Your task to perform on an android device: Open Google Image 0: 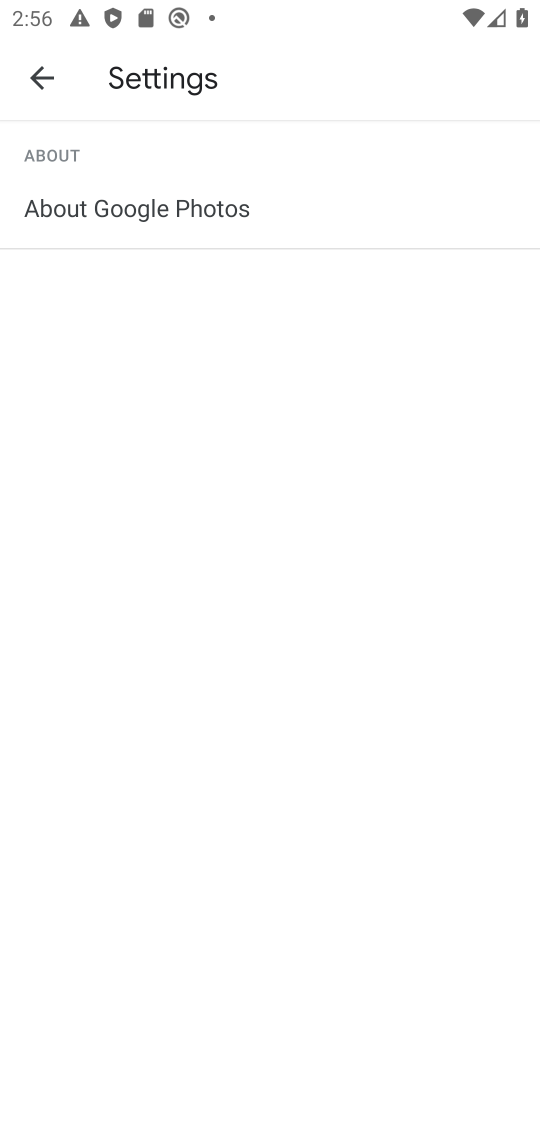
Step 0: press home button
Your task to perform on an android device: Open Google Image 1: 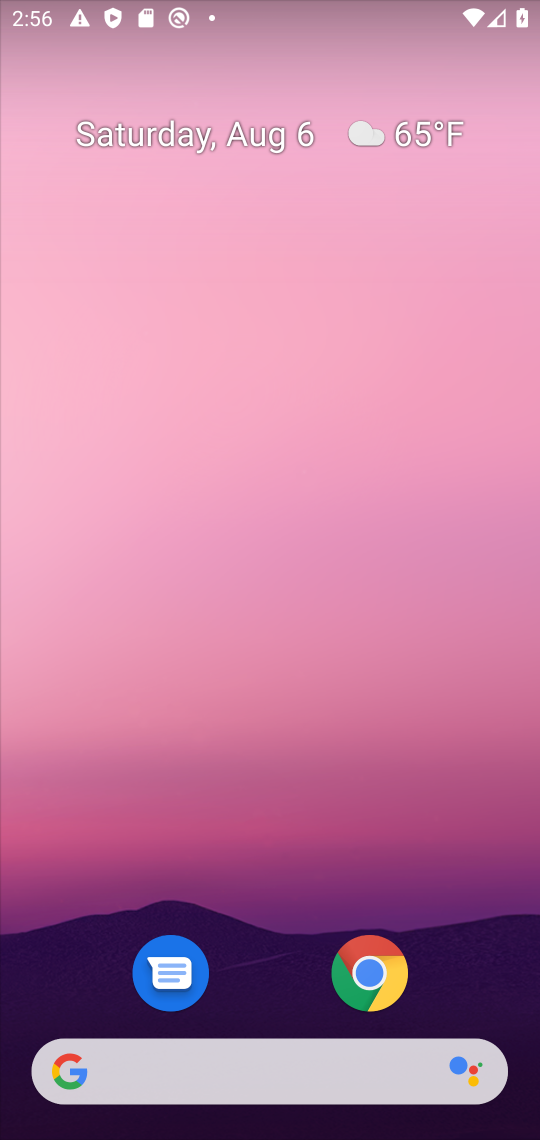
Step 1: drag from (273, 965) to (273, 83)
Your task to perform on an android device: Open Google Image 2: 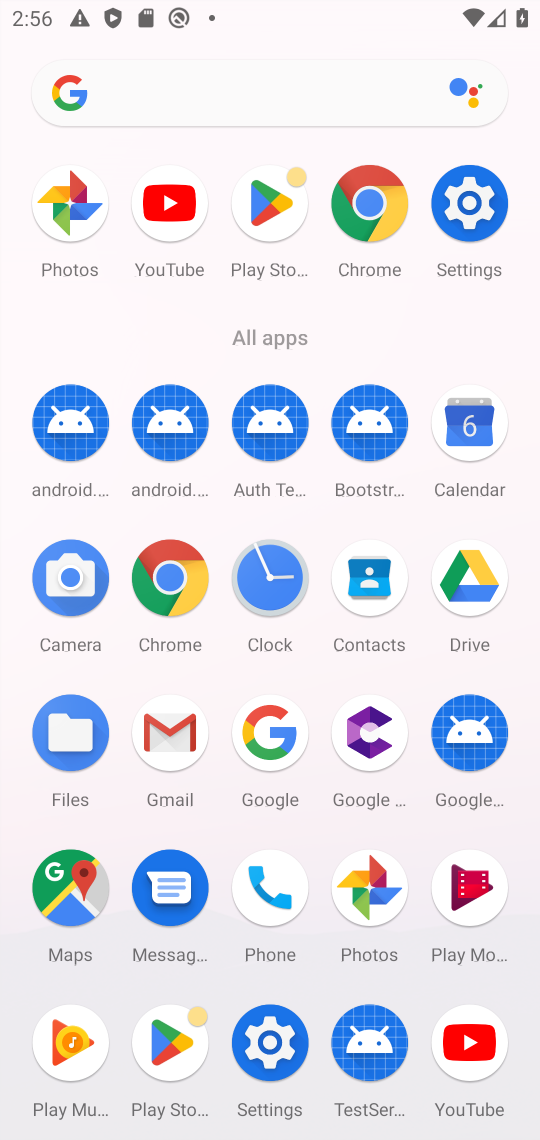
Step 2: click (269, 726)
Your task to perform on an android device: Open Google Image 3: 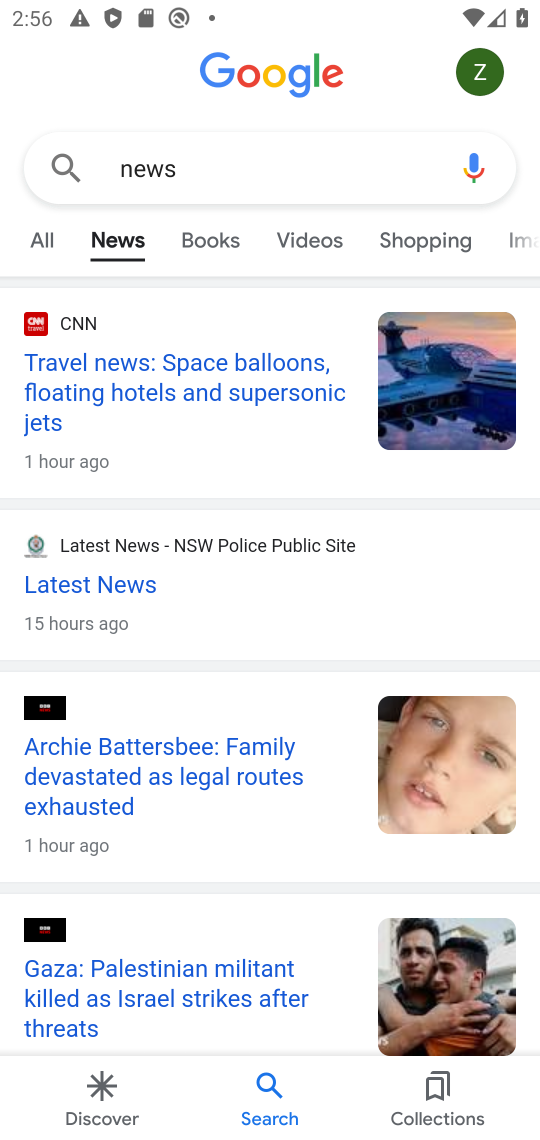
Step 3: task complete